Your task to perform on an android device: turn notification dots on Image 0: 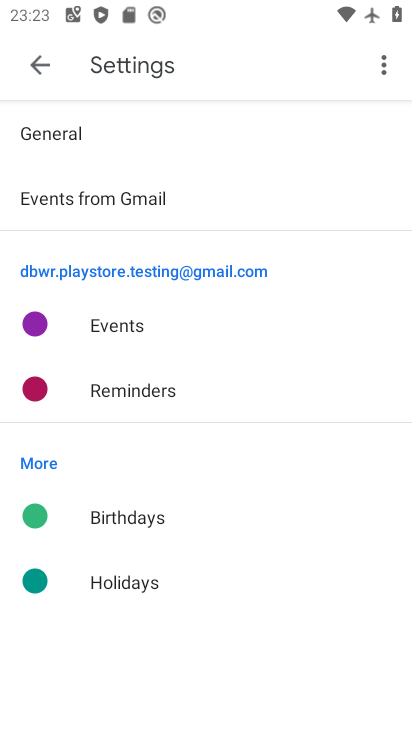
Step 0: press back button
Your task to perform on an android device: turn notification dots on Image 1: 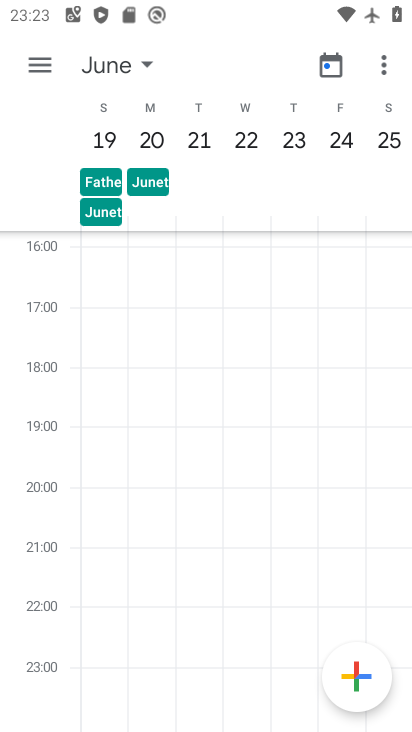
Step 1: press back button
Your task to perform on an android device: turn notification dots on Image 2: 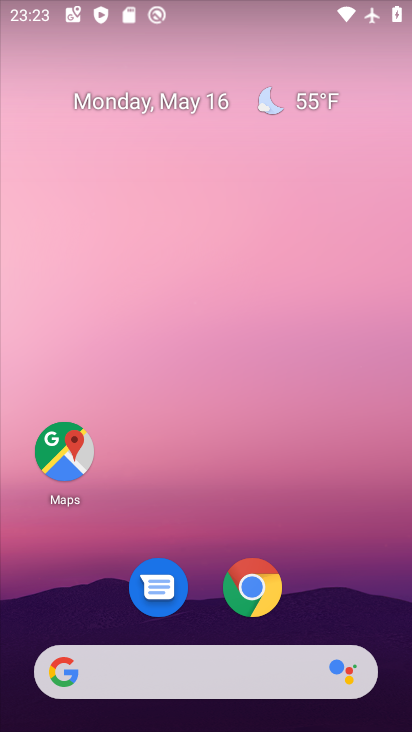
Step 2: drag from (319, 585) to (216, 34)
Your task to perform on an android device: turn notification dots on Image 3: 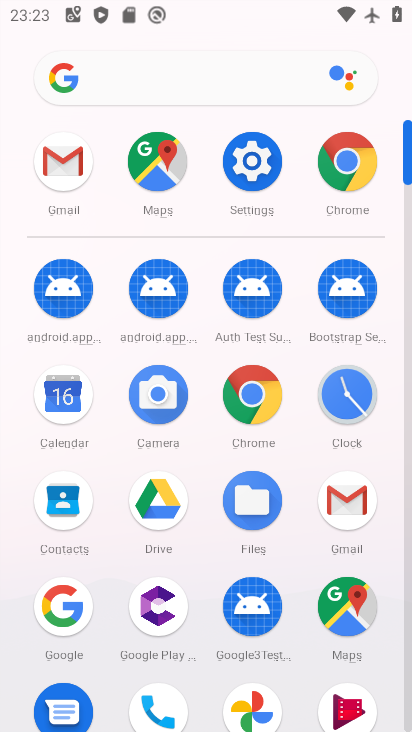
Step 3: click (254, 160)
Your task to perform on an android device: turn notification dots on Image 4: 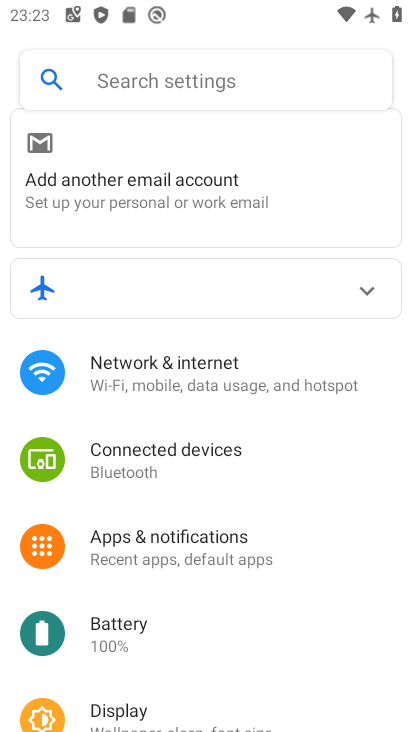
Step 4: drag from (338, 541) to (280, 141)
Your task to perform on an android device: turn notification dots on Image 5: 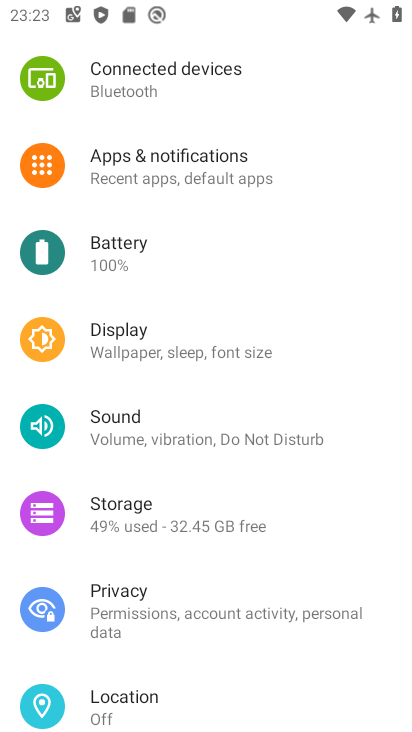
Step 5: drag from (258, 130) to (265, 454)
Your task to perform on an android device: turn notification dots on Image 6: 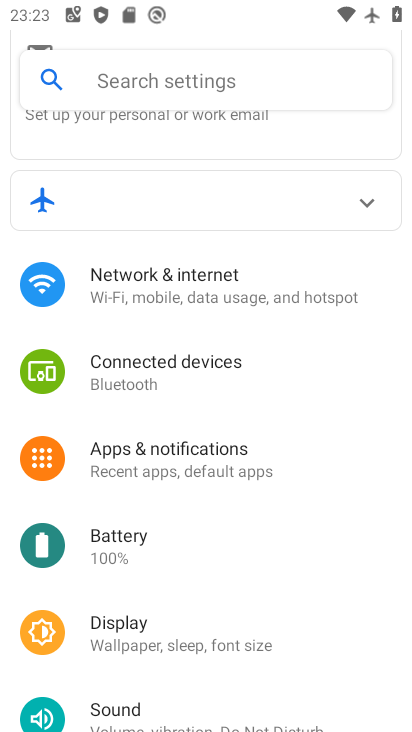
Step 6: click (215, 458)
Your task to perform on an android device: turn notification dots on Image 7: 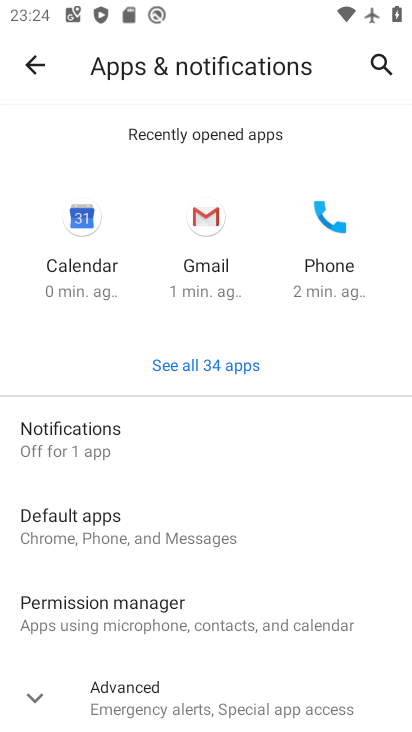
Step 7: click (114, 449)
Your task to perform on an android device: turn notification dots on Image 8: 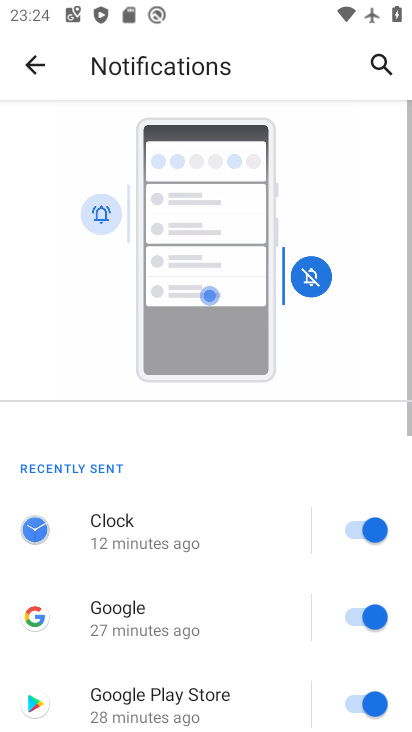
Step 8: drag from (186, 638) to (212, 110)
Your task to perform on an android device: turn notification dots on Image 9: 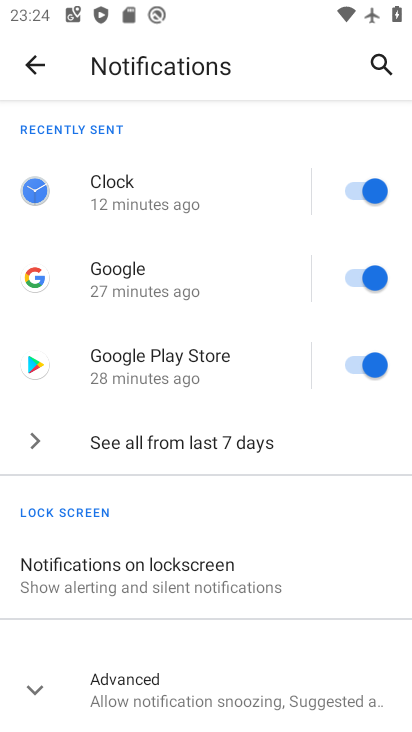
Step 9: click (171, 650)
Your task to perform on an android device: turn notification dots on Image 10: 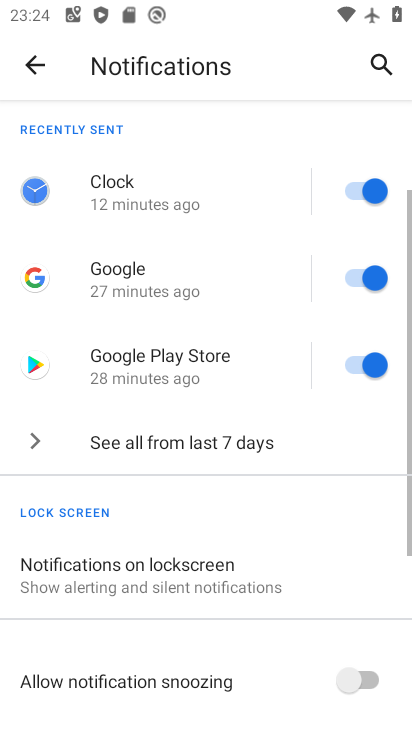
Step 10: drag from (210, 618) to (211, 75)
Your task to perform on an android device: turn notification dots on Image 11: 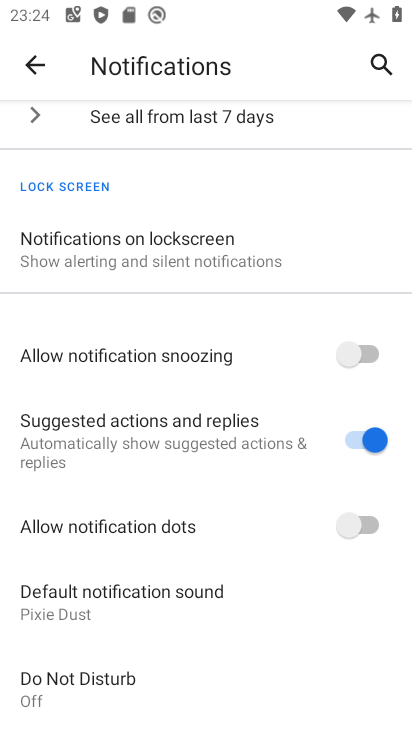
Step 11: click (338, 520)
Your task to perform on an android device: turn notification dots on Image 12: 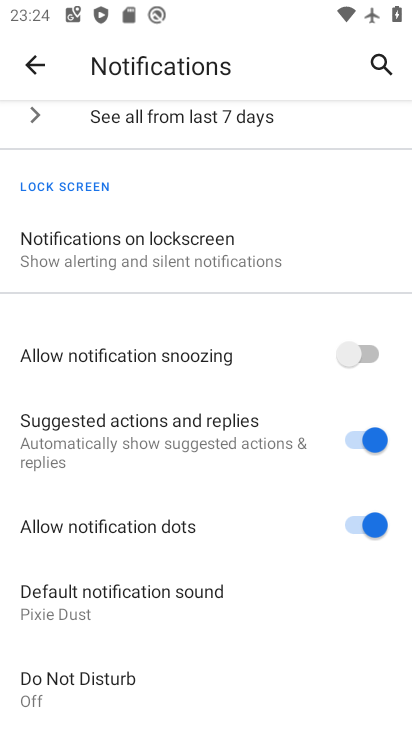
Step 12: task complete